Your task to perform on an android device: turn pop-ups off in chrome Image 0: 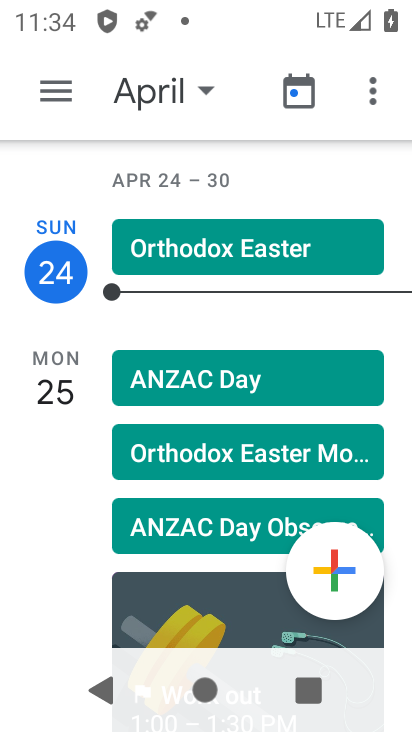
Step 0: press home button
Your task to perform on an android device: turn pop-ups off in chrome Image 1: 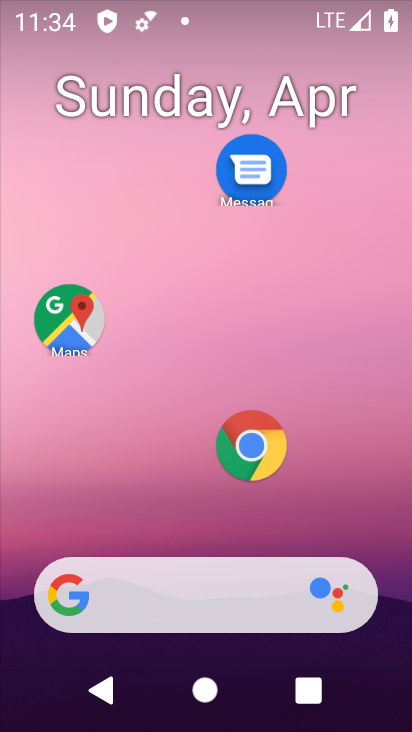
Step 1: drag from (159, 608) to (369, 89)
Your task to perform on an android device: turn pop-ups off in chrome Image 2: 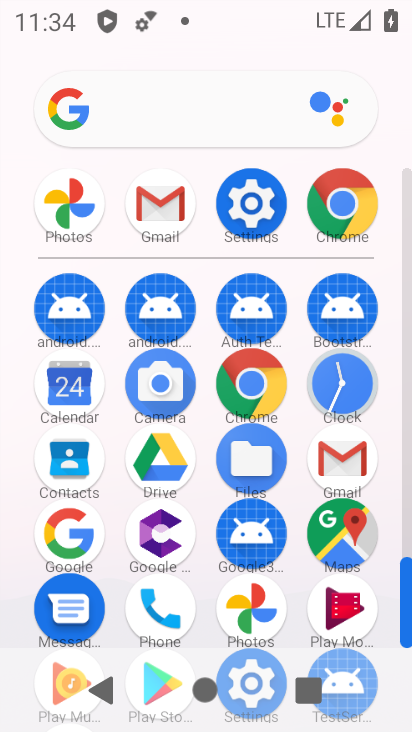
Step 2: click (334, 218)
Your task to perform on an android device: turn pop-ups off in chrome Image 3: 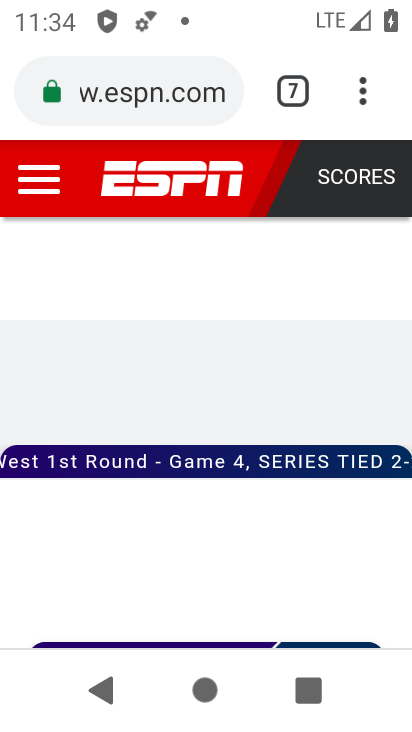
Step 3: drag from (366, 92) to (160, 473)
Your task to perform on an android device: turn pop-ups off in chrome Image 4: 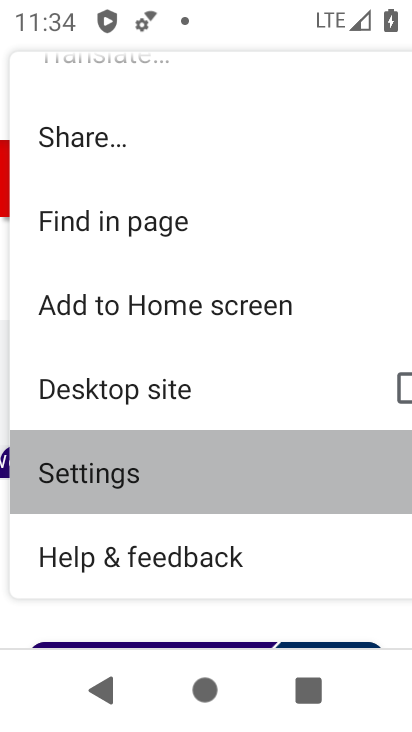
Step 4: click (160, 474)
Your task to perform on an android device: turn pop-ups off in chrome Image 5: 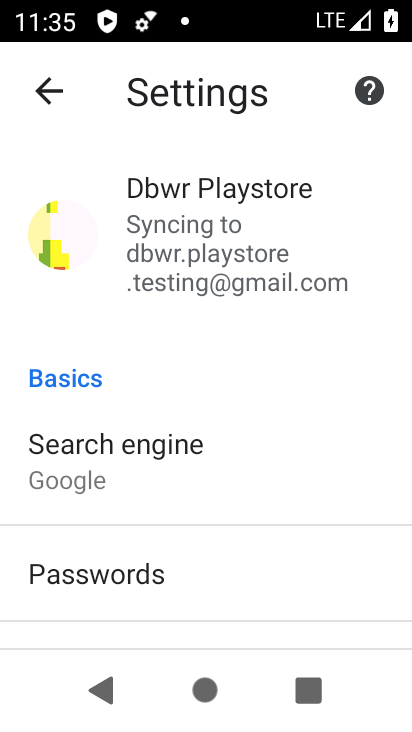
Step 5: drag from (139, 603) to (327, 339)
Your task to perform on an android device: turn pop-ups off in chrome Image 6: 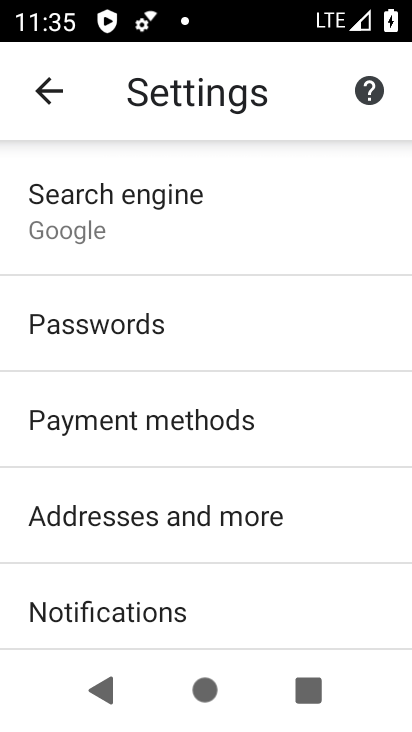
Step 6: drag from (161, 619) to (331, 128)
Your task to perform on an android device: turn pop-ups off in chrome Image 7: 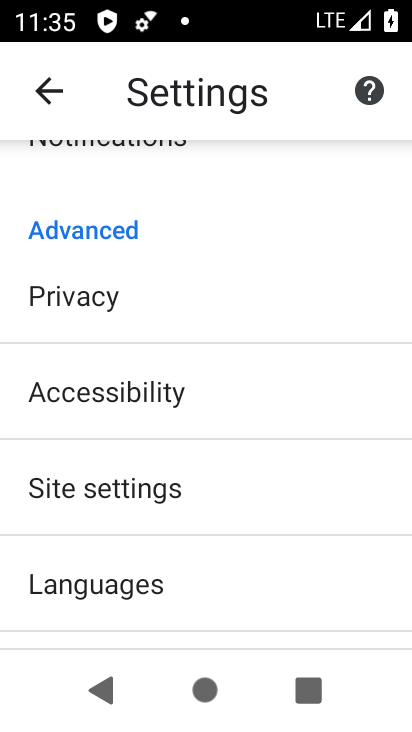
Step 7: click (160, 488)
Your task to perform on an android device: turn pop-ups off in chrome Image 8: 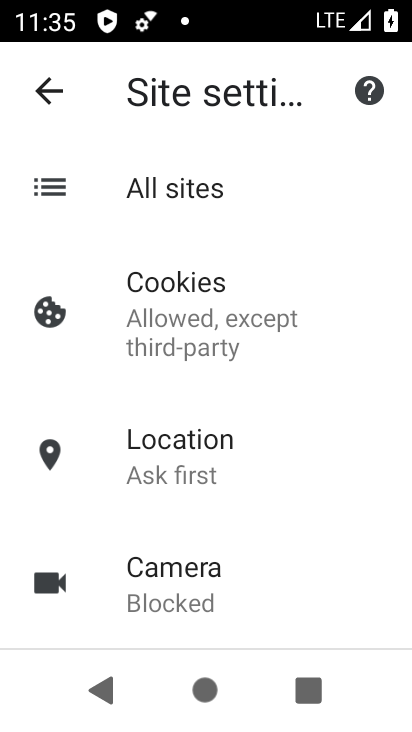
Step 8: drag from (247, 569) to (386, 80)
Your task to perform on an android device: turn pop-ups off in chrome Image 9: 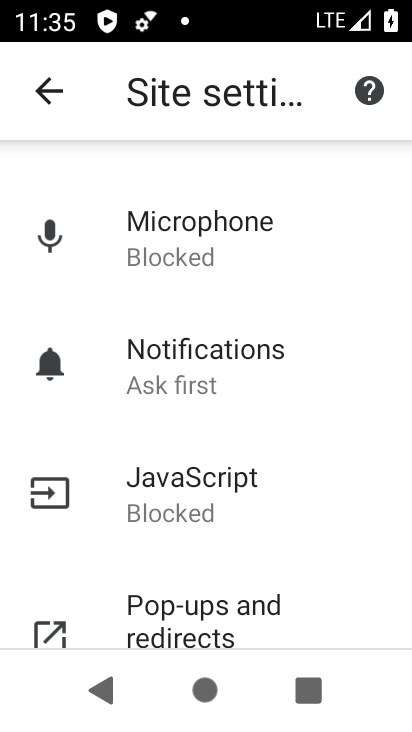
Step 9: click (201, 623)
Your task to perform on an android device: turn pop-ups off in chrome Image 10: 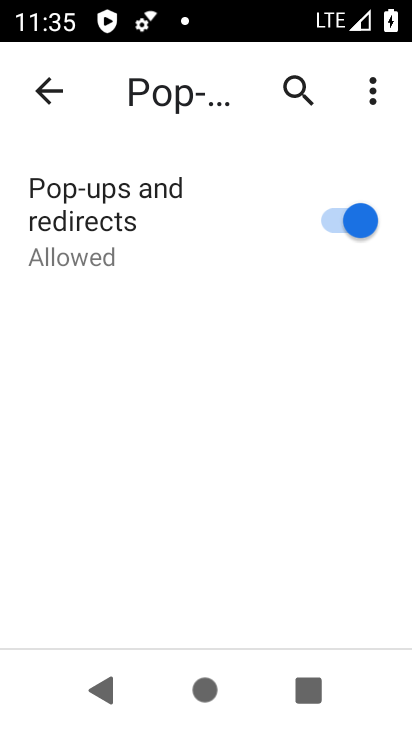
Step 10: click (345, 224)
Your task to perform on an android device: turn pop-ups off in chrome Image 11: 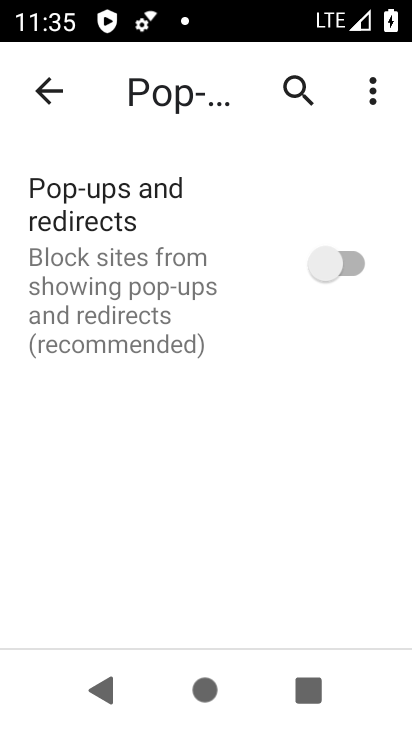
Step 11: task complete